Your task to perform on an android device: allow notifications from all sites in the chrome app Image 0: 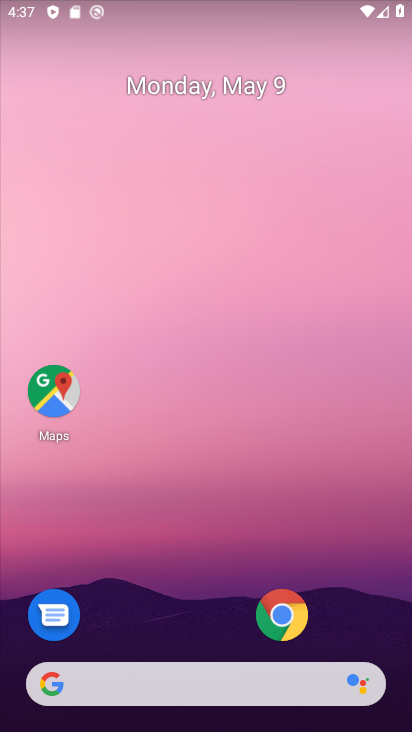
Step 0: click (266, 611)
Your task to perform on an android device: allow notifications from all sites in the chrome app Image 1: 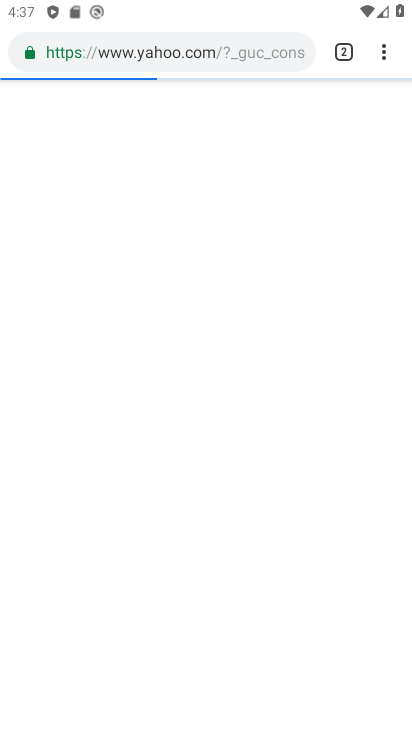
Step 1: click (383, 59)
Your task to perform on an android device: allow notifications from all sites in the chrome app Image 2: 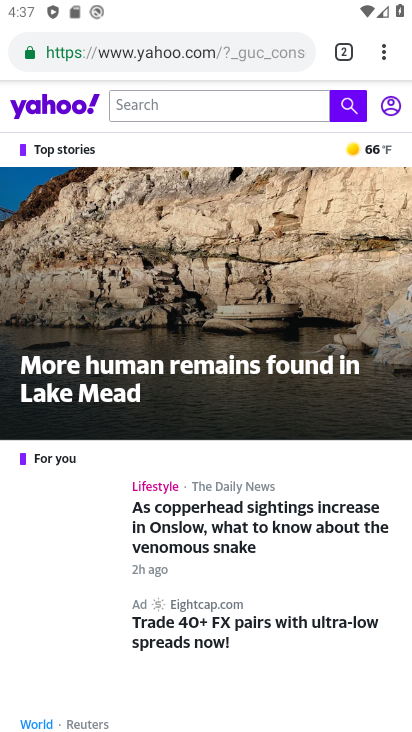
Step 2: click (383, 59)
Your task to perform on an android device: allow notifications from all sites in the chrome app Image 3: 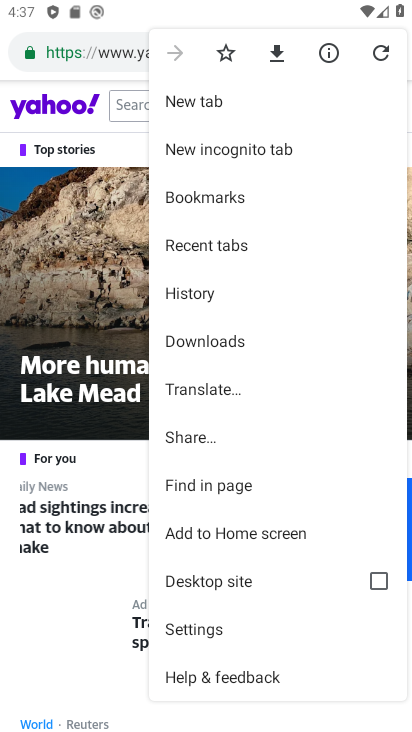
Step 3: drag from (215, 583) to (201, 347)
Your task to perform on an android device: allow notifications from all sites in the chrome app Image 4: 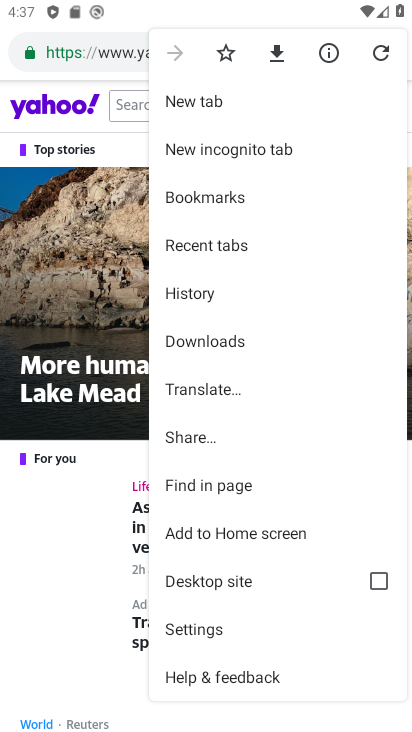
Step 4: click (183, 633)
Your task to perform on an android device: allow notifications from all sites in the chrome app Image 5: 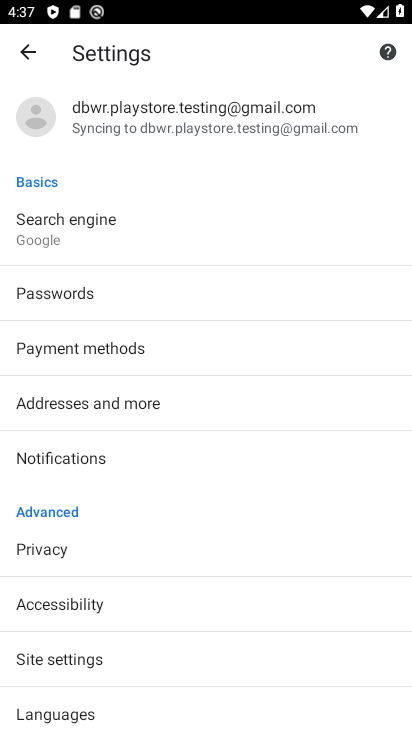
Step 5: click (82, 663)
Your task to perform on an android device: allow notifications from all sites in the chrome app Image 6: 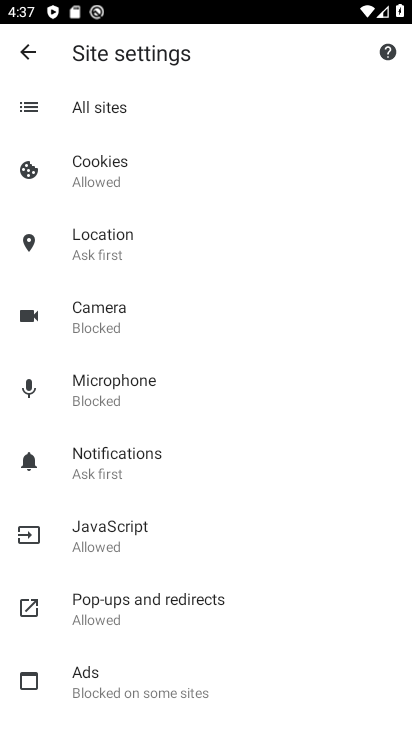
Step 6: task complete